Your task to perform on an android device: Open ESPN.com Image 0: 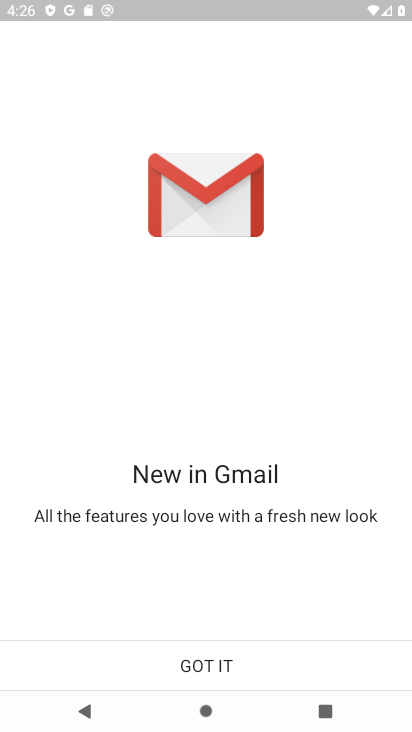
Step 0: press home button
Your task to perform on an android device: Open ESPN.com Image 1: 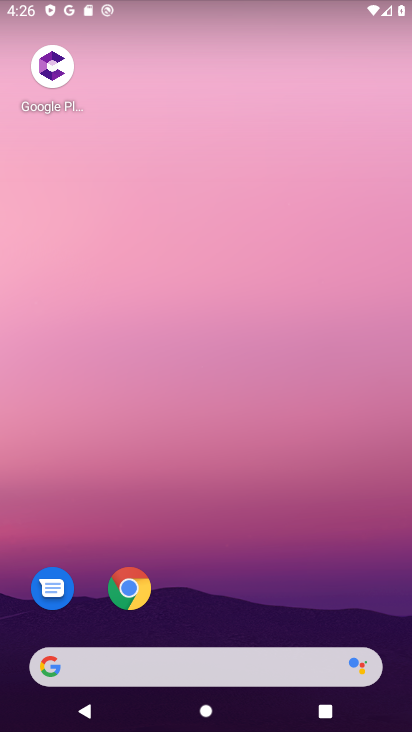
Step 1: drag from (288, 580) to (328, 112)
Your task to perform on an android device: Open ESPN.com Image 2: 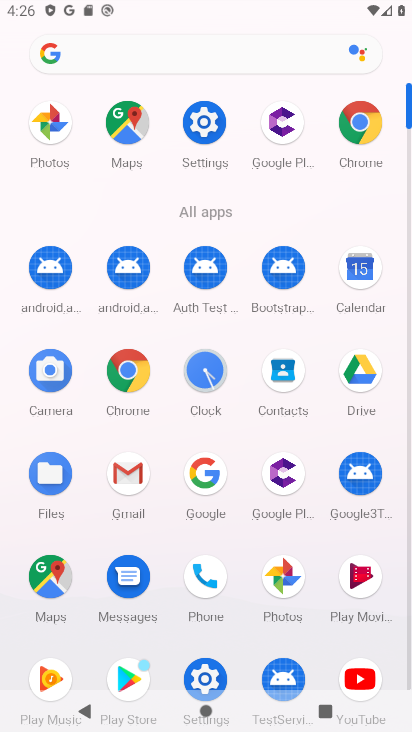
Step 2: click (135, 362)
Your task to perform on an android device: Open ESPN.com Image 3: 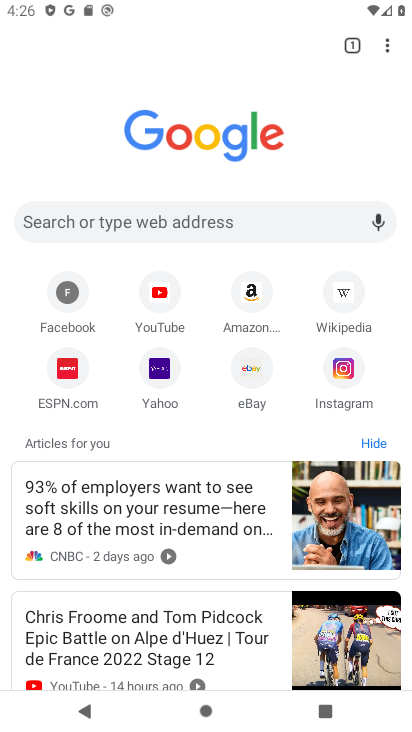
Step 3: click (256, 225)
Your task to perform on an android device: Open ESPN.com Image 4: 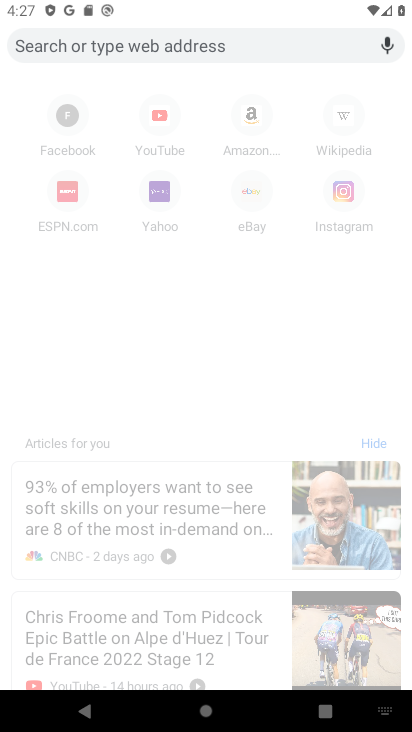
Step 4: type "ESPN.com"
Your task to perform on an android device: Open ESPN.com Image 5: 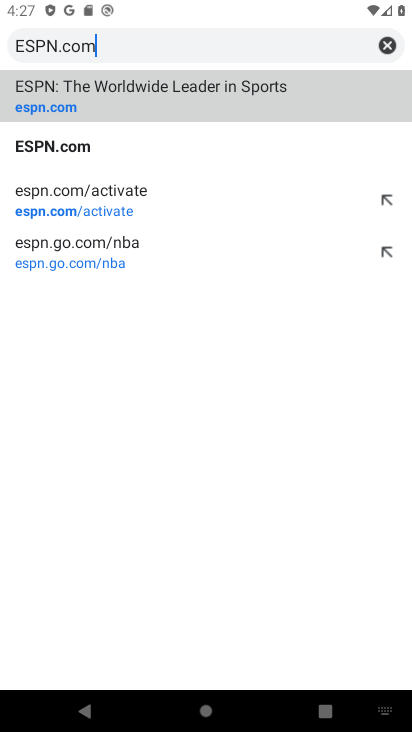
Step 5: click (53, 110)
Your task to perform on an android device: Open ESPN.com Image 6: 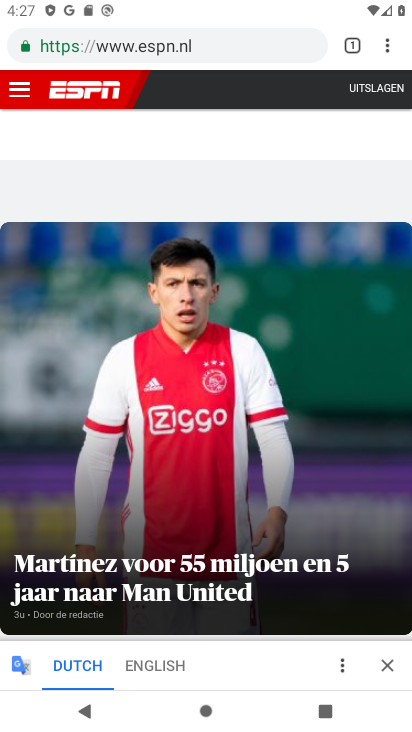
Step 6: task complete